Your task to perform on an android device: change the clock display to analog Image 0: 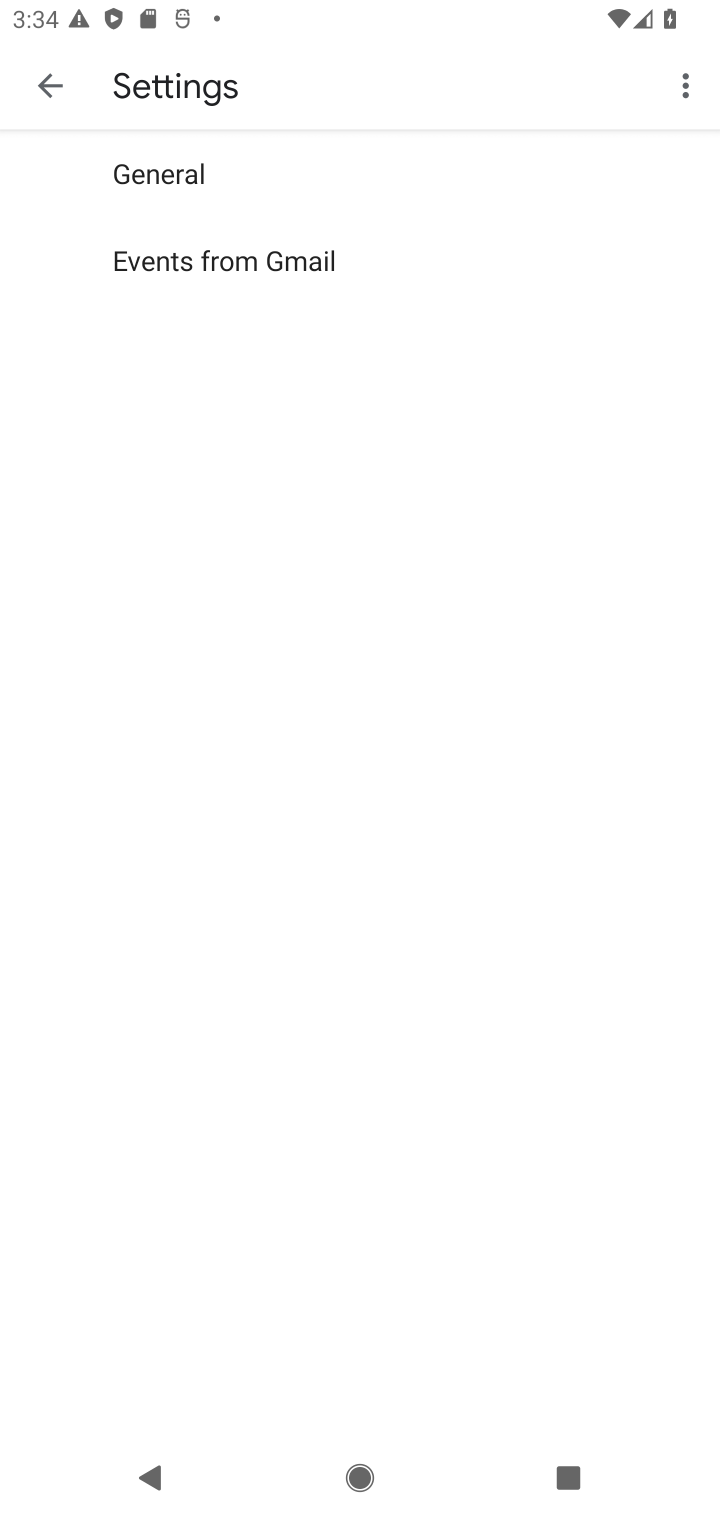
Step 0: press home button
Your task to perform on an android device: change the clock display to analog Image 1: 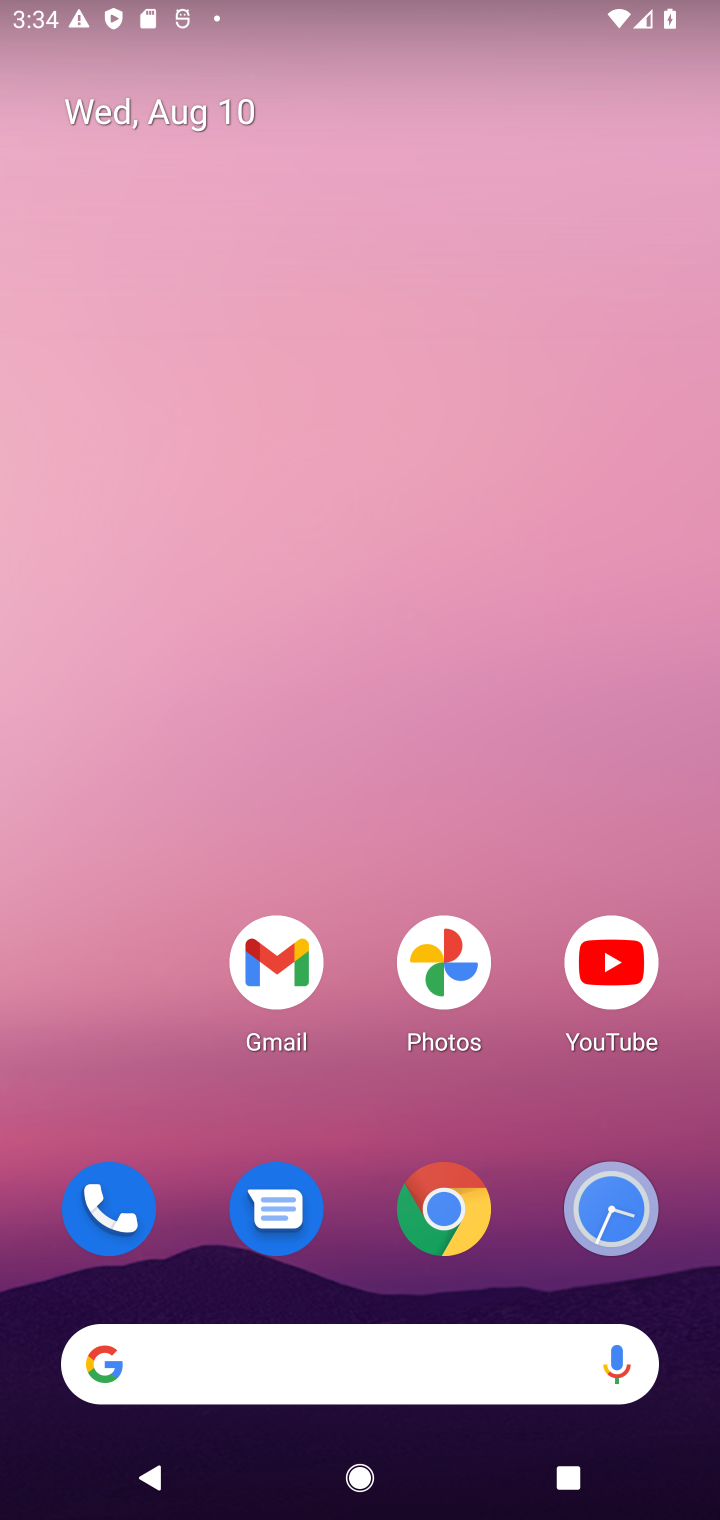
Step 1: click (597, 1200)
Your task to perform on an android device: change the clock display to analog Image 2: 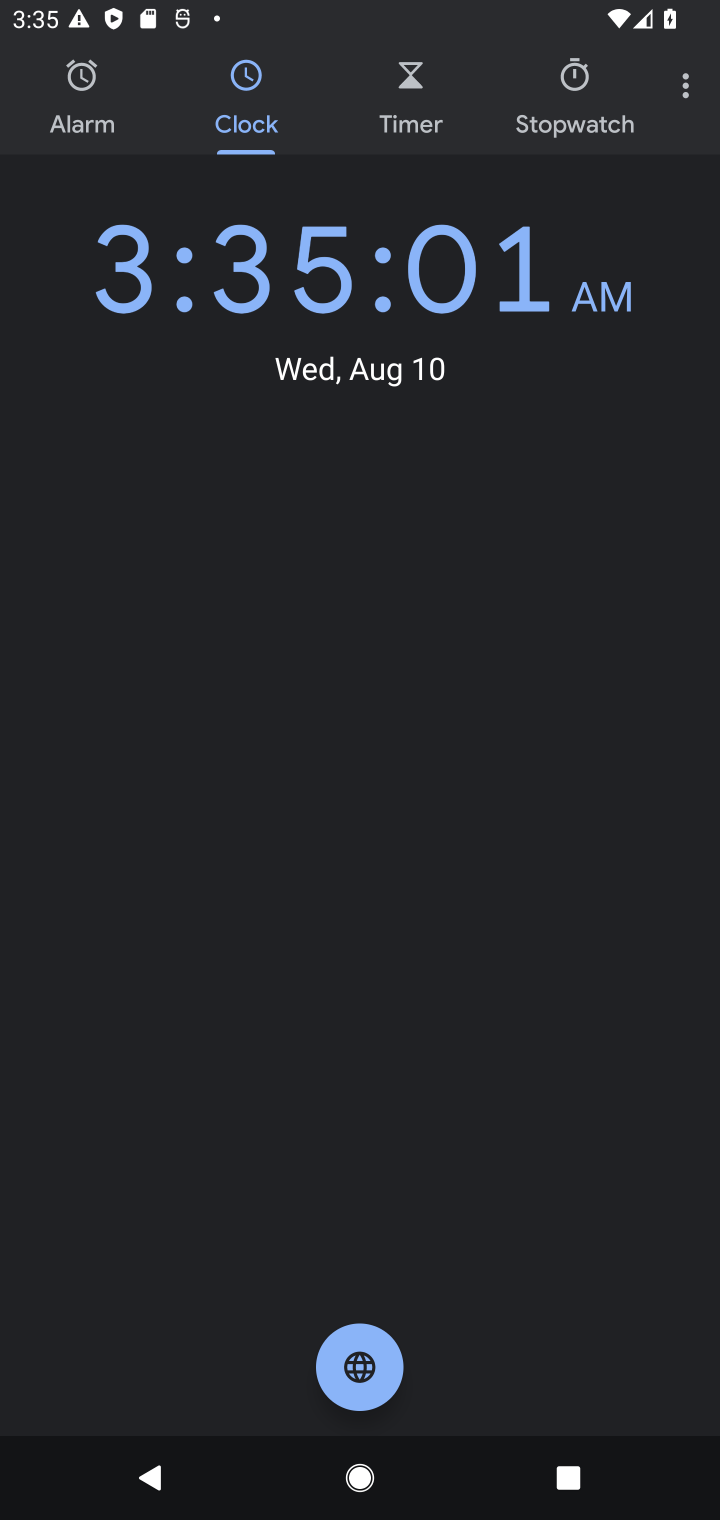
Step 2: click (706, 95)
Your task to perform on an android device: change the clock display to analog Image 3: 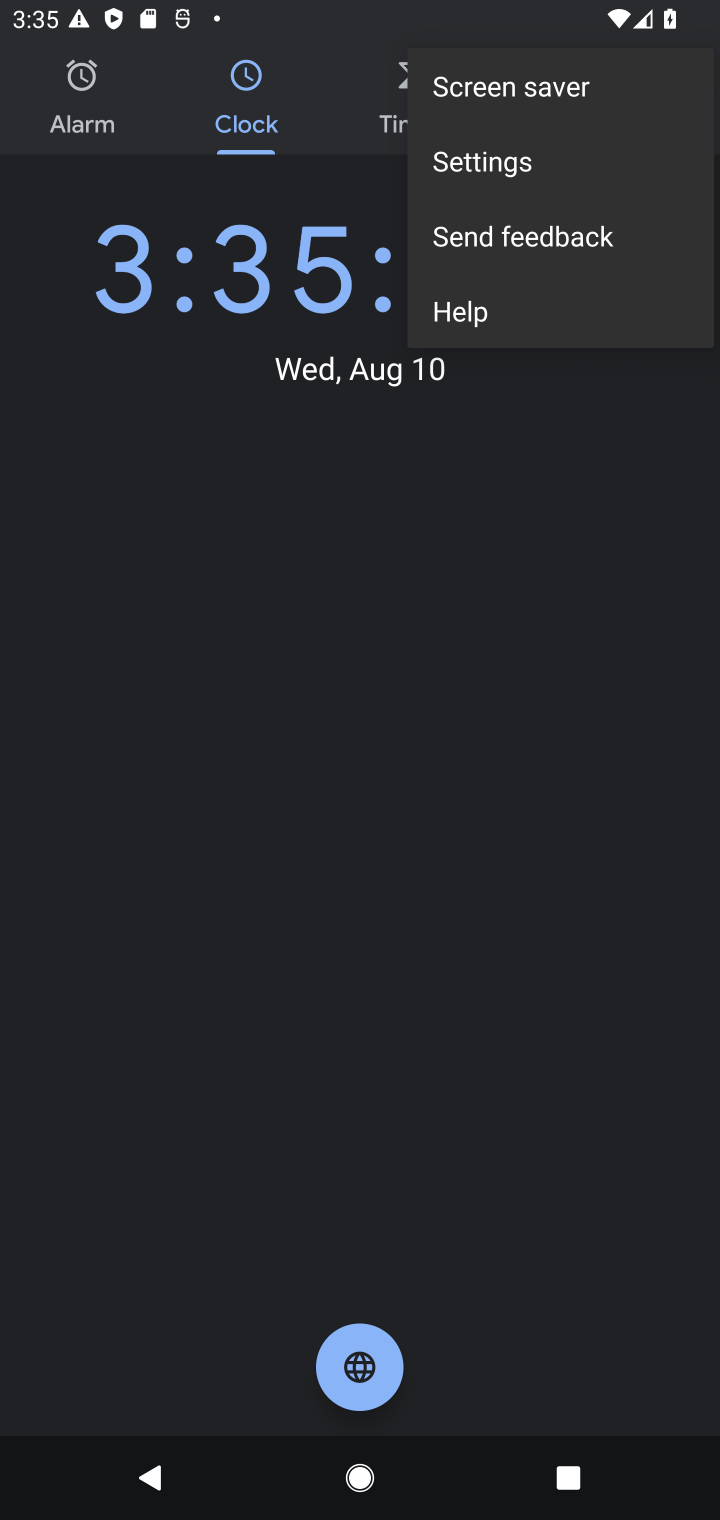
Step 3: click (513, 173)
Your task to perform on an android device: change the clock display to analog Image 4: 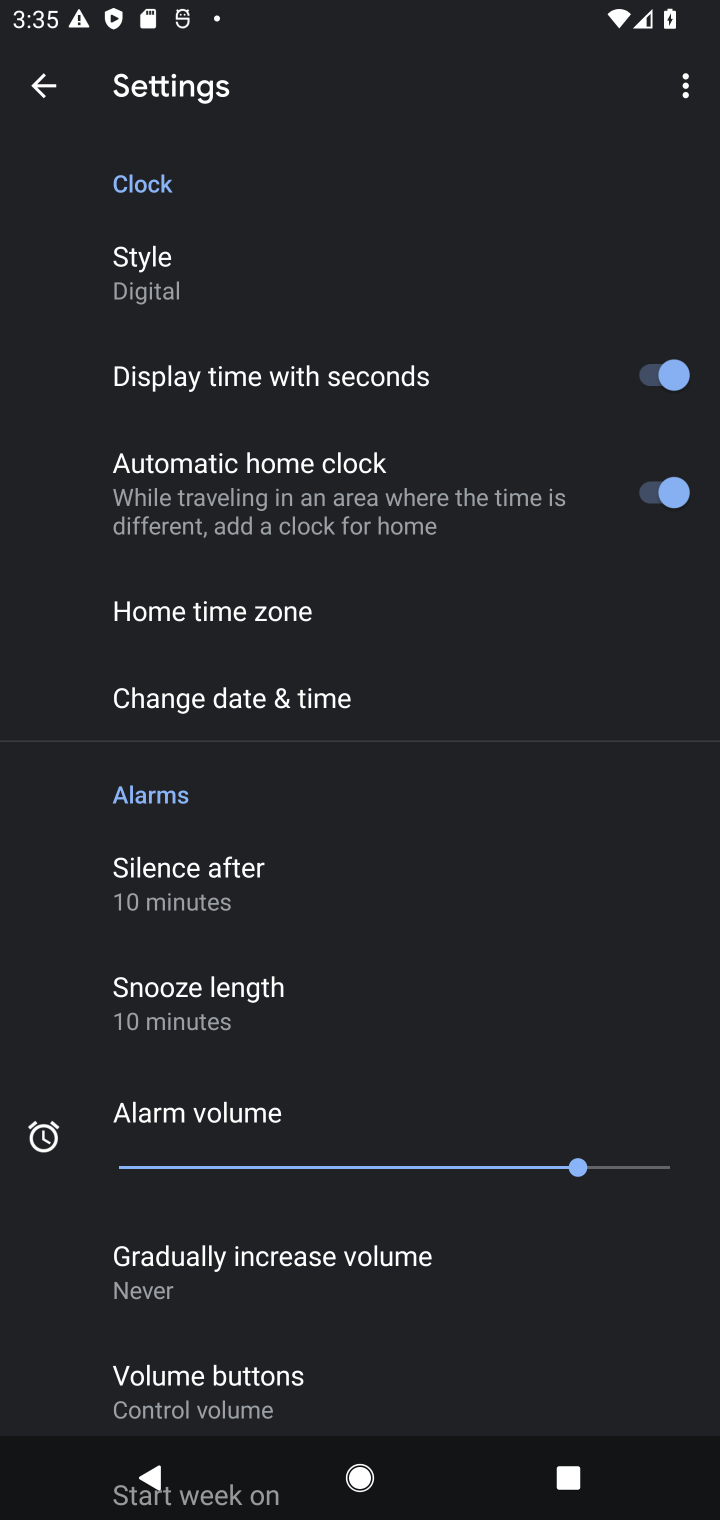
Step 4: click (248, 275)
Your task to perform on an android device: change the clock display to analog Image 5: 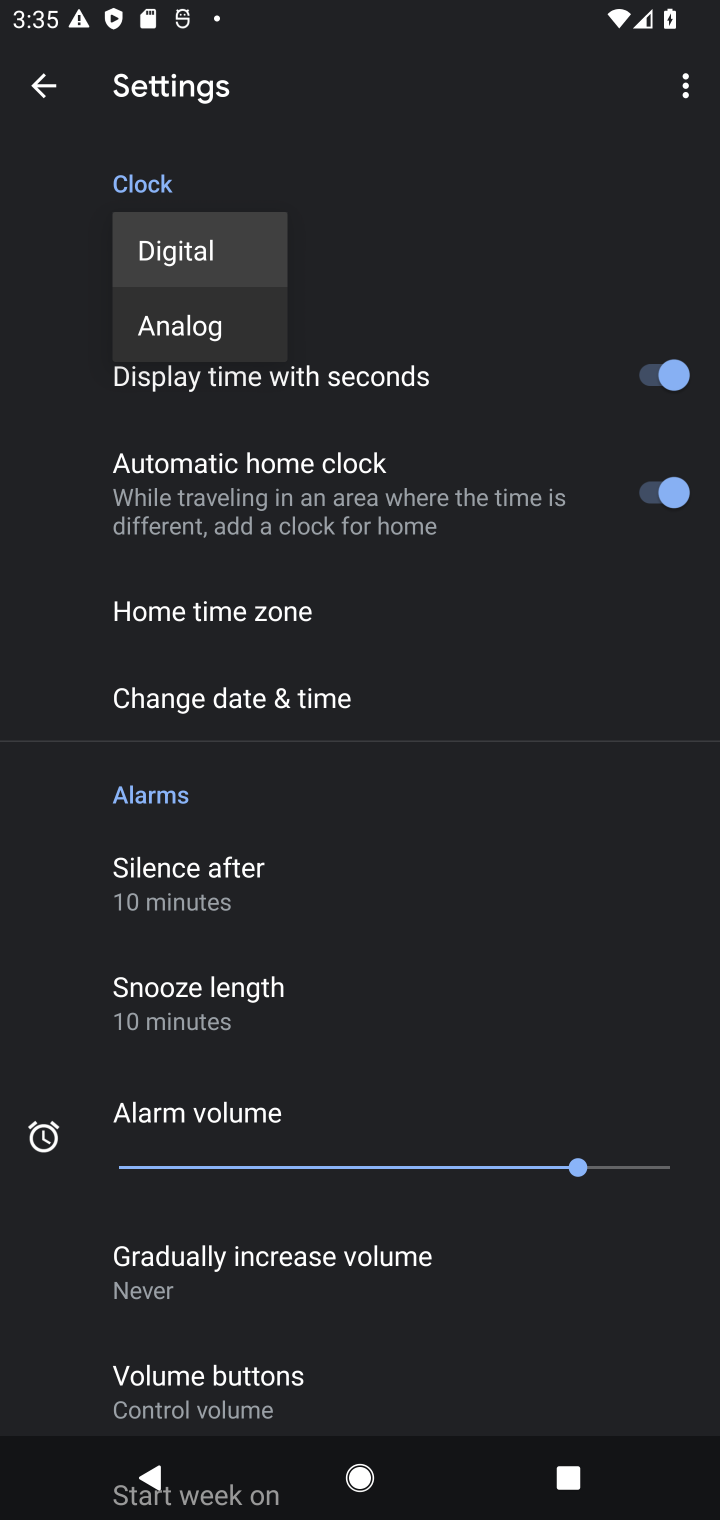
Step 5: click (215, 345)
Your task to perform on an android device: change the clock display to analog Image 6: 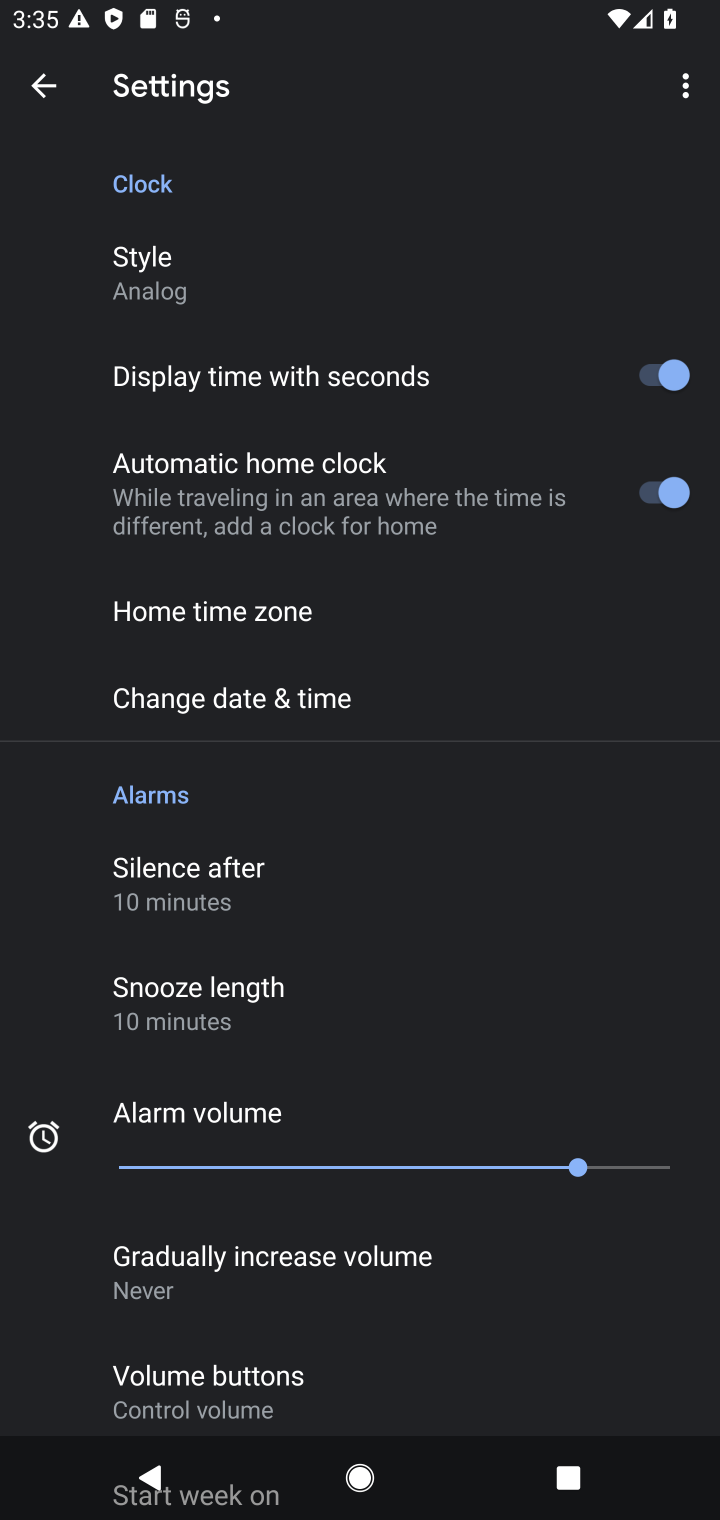
Step 6: task complete